Your task to perform on an android device: turn off priority inbox in the gmail app Image 0: 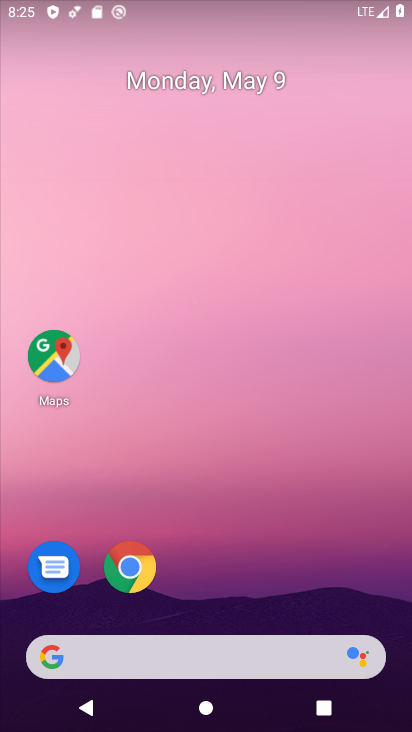
Step 0: drag from (268, 572) to (208, 122)
Your task to perform on an android device: turn off priority inbox in the gmail app Image 1: 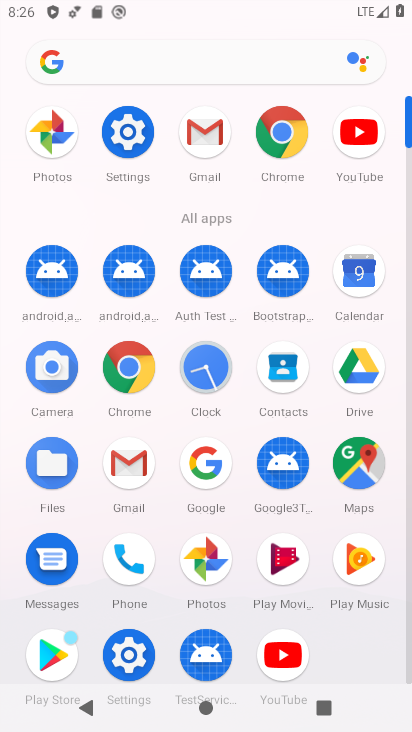
Step 1: click (133, 470)
Your task to perform on an android device: turn off priority inbox in the gmail app Image 2: 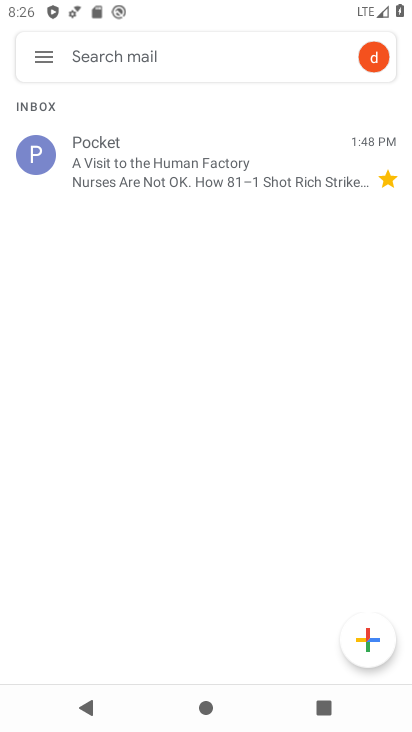
Step 2: click (50, 58)
Your task to perform on an android device: turn off priority inbox in the gmail app Image 3: 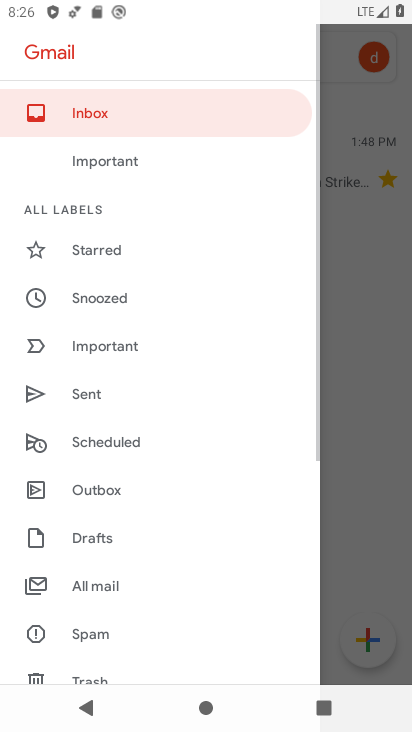
Step 3: drag from (122, 536) to (92, 188)
Your task to perform on an android device: turn off priority inbox in the gmail app Image 4: 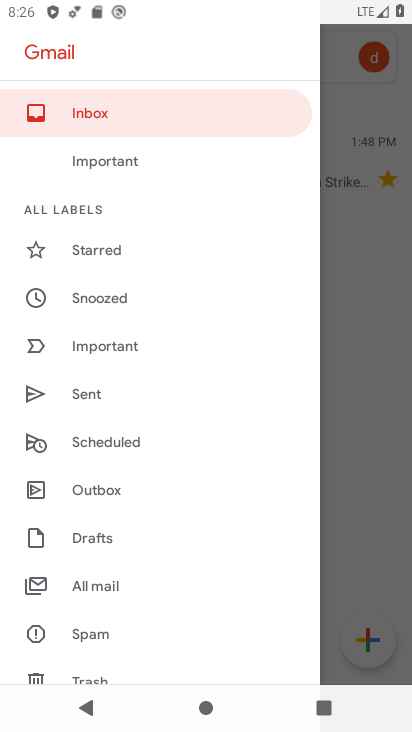
Step 4: drag from (96, 620) to (86, 291)
Your task to perform on an android device: turn off priority inbox in the gmail app Image 5: 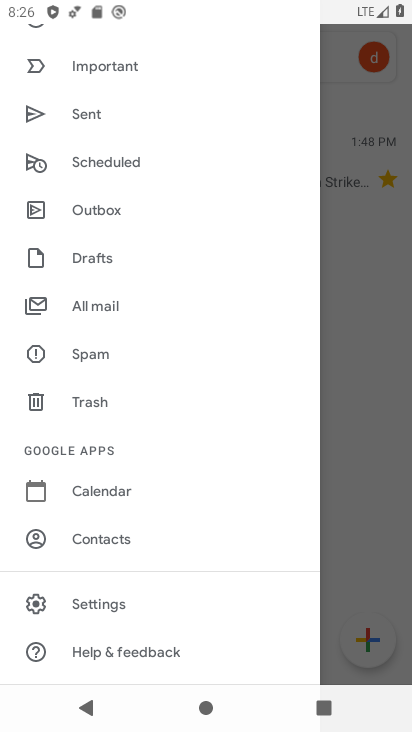
Step 5: click (90, 602)
Your task to perform on an android device: turn off priority inbox in the gmail app Image 6: 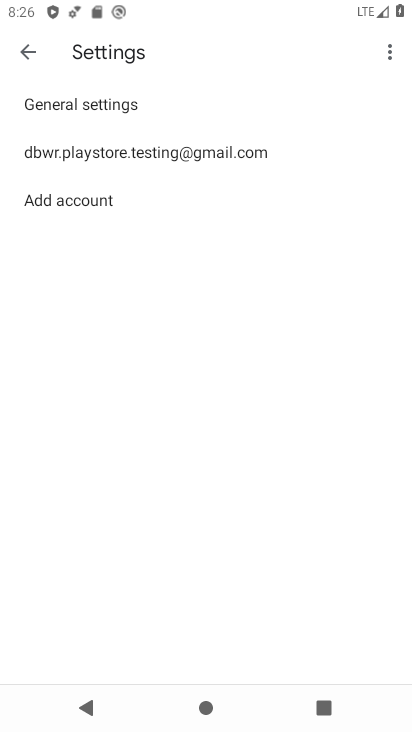
Step 6: click (65, 142)
Your task to perform on an android device: turn off priority inbox in the gmail app Image 7: 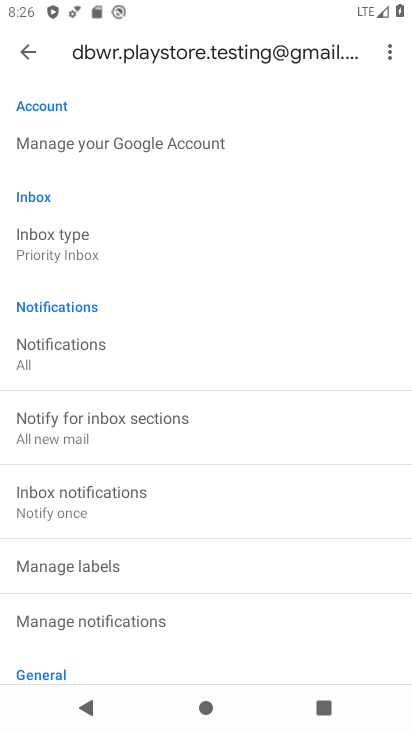
Step 7: click (80, 245)
Your task to perform on an android device: turn off priority inbox in the gmail app Image 8: 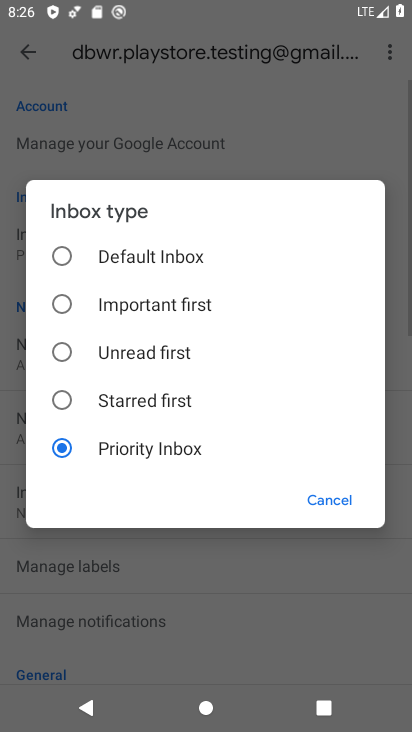
Step 8: click (88, 245)
Your task to perform on an android device: turn off priority inbox in the gmail app Image 9: 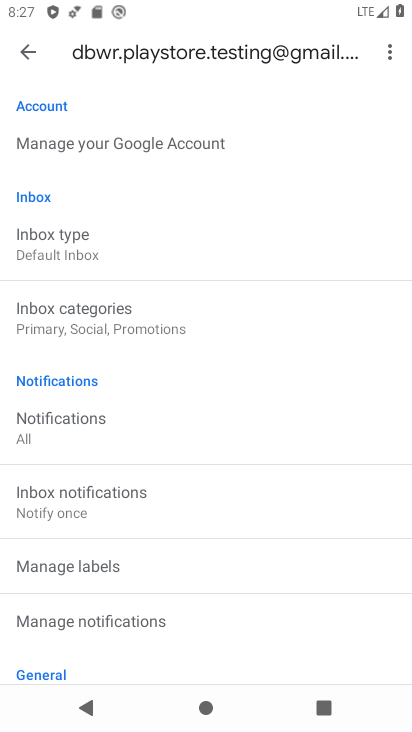
Step 9: task complete